Your task to perform on an android device: delete the emails in spam in the gmail app Image 0: 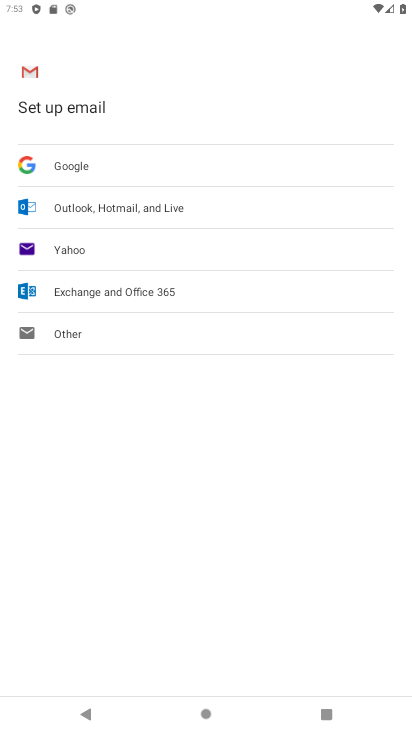
Step 0: press home button
Your task to perform on an android device: delete the emails in spam in the gmail app Image 1: 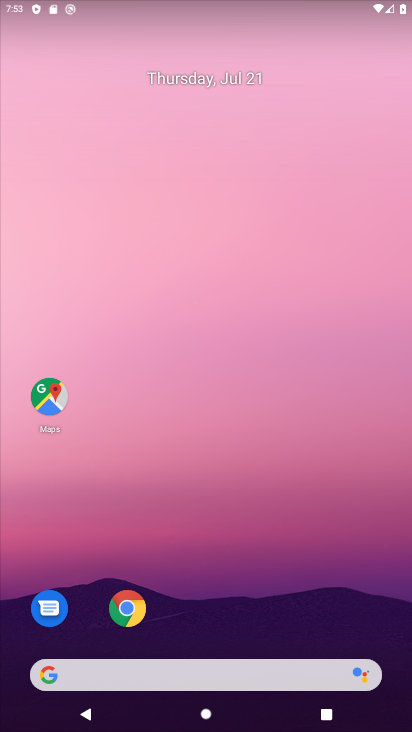
Step 1: drag from (5, 659) to (348, 3)
Your task to perform on an android device: delete the emails in spam in the gmail app Image 2: 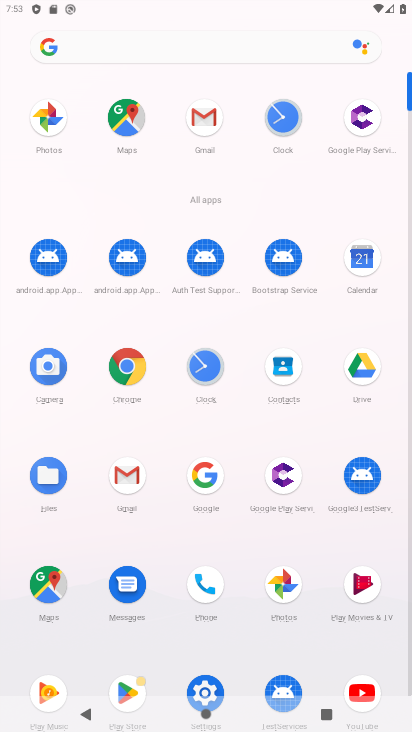
Step 2: click (129, 468)
Your task to perform on an android device: delete the emails in spam in the gmail app Image 3: 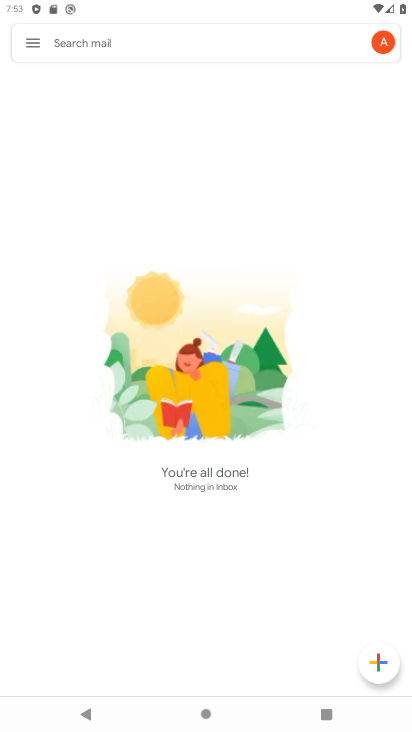
Step 3: click (32, 52)
Your task to perform on an android device: delete the emails in spam in the gmail app Image 4: 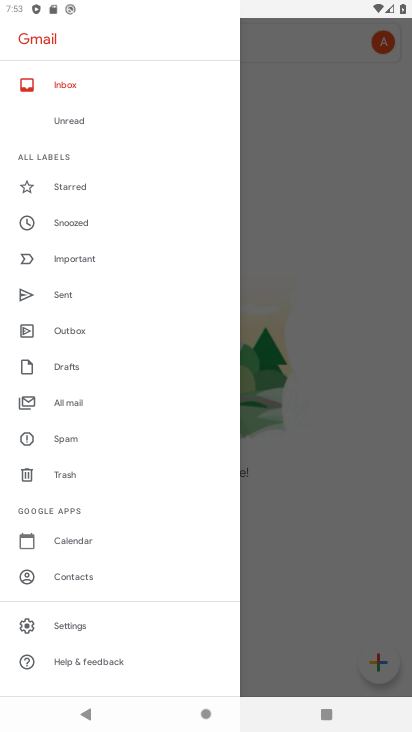
Step 4: click (81, 447)
Your task to perform on an android device: delete the emails in spam in the gmail app Image 5: 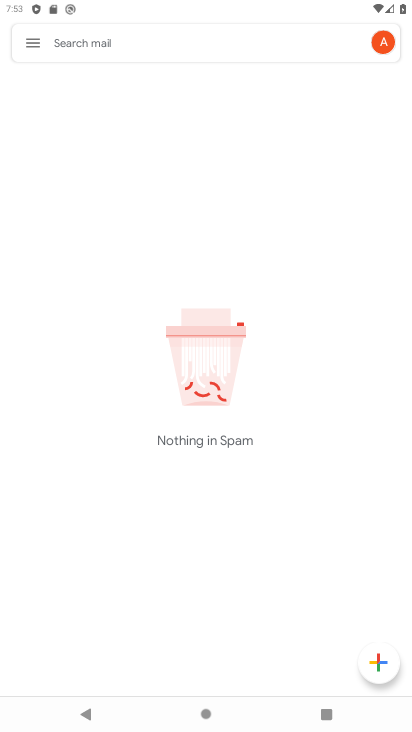
Step 5: task complete